Your task to perform on an android device: Open the phone app and click the voicemail tab. Image 0: 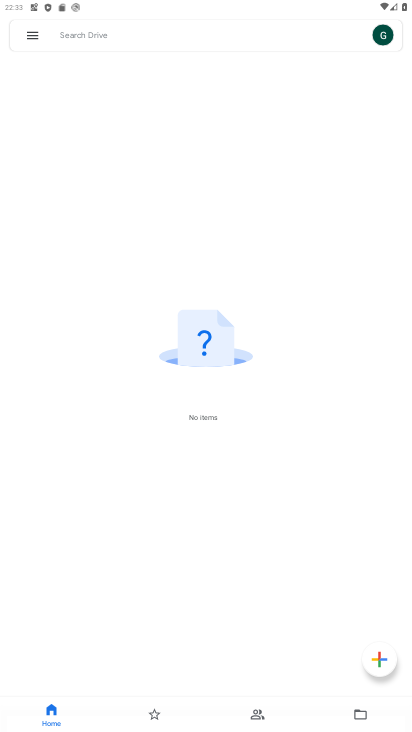
Step 0: press home button
Your task to perform on an android device: Open the phone app and click the voicemail tab. Image 1: 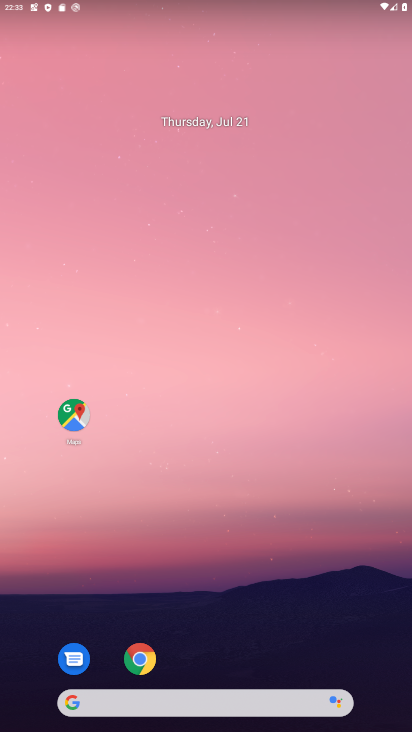
Step 1: drag from (274, 587) to (233, 72)
Your task to perform on an android device: Open the phone app and click the voicemail tab. Image 2: 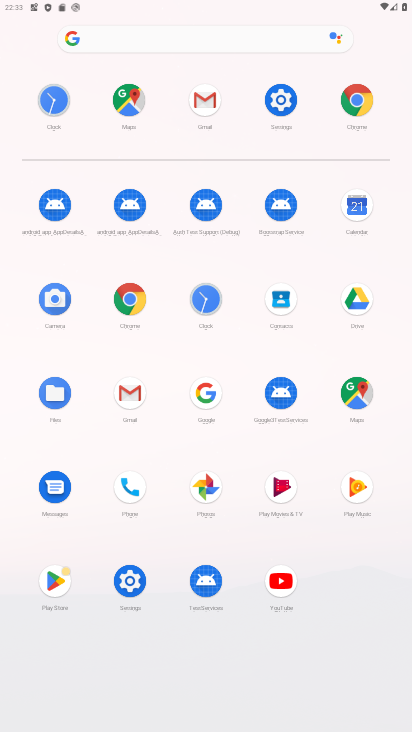
Step 2: click (128, 494)
Your task to perform on an android device: Open the phone app and click the voicemail tab. Image 3: 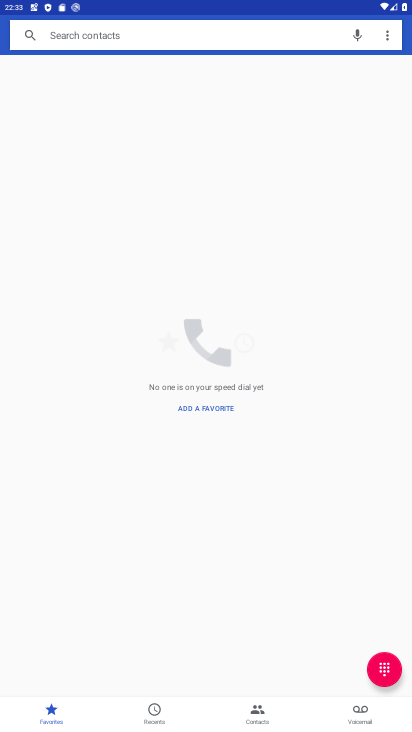
Step 3: click (353, 710)
Your task to perform on an android device: Open the phone app and click the voicemail tab. Image 4: 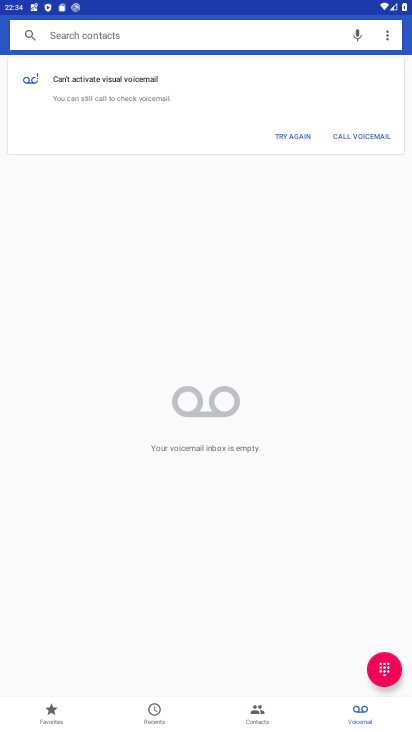
Step 4: task complete